Your task to perform on an android device: turn on notifications settings in the gmail app Image 0: 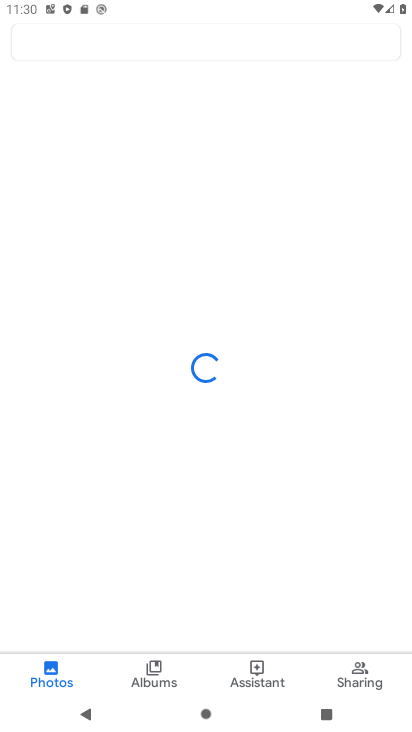
Step 0: press home button
Your task to perform on an android device: turn on notifications settings in the gmail app Image 1: 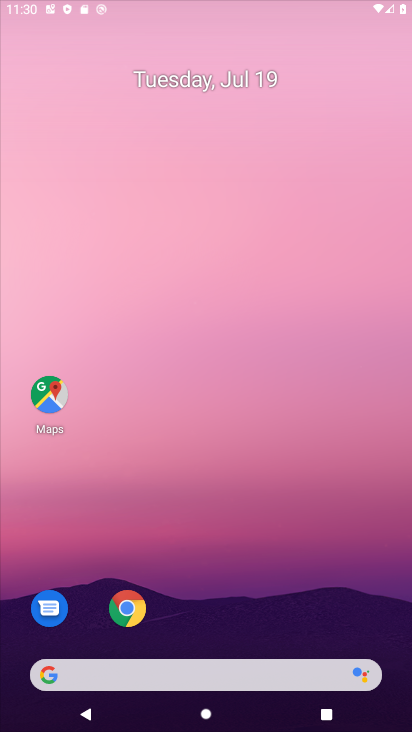
Step 1: drag from (219, 625) to (269, 72)
Your task to perform on an android device: turn on notifications settings in the gmail app Image 2: 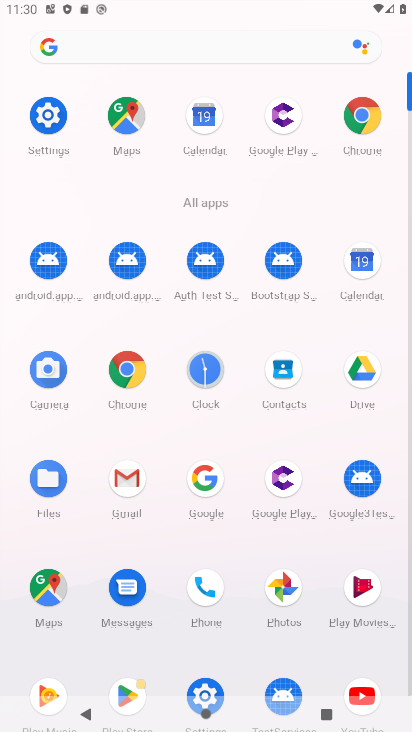
Step 2: click (130, 477)
Your task to perform on an android device: turn on notifications settings in the gmail app Image 3: 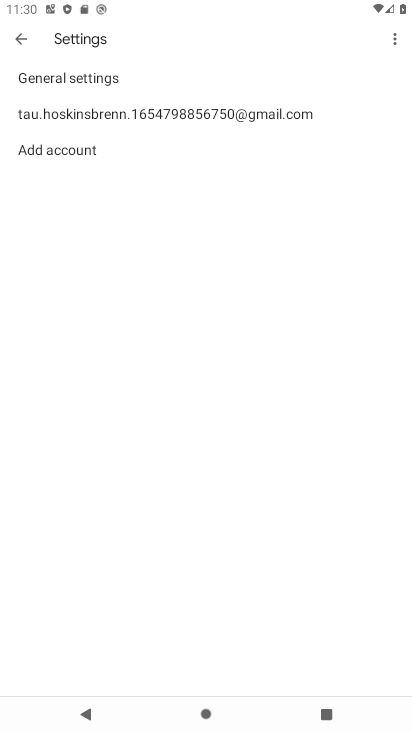
Step 3: click (169, 117)
Your task to perform on an android device: turn on notifications settings in the gmail app Image 4: 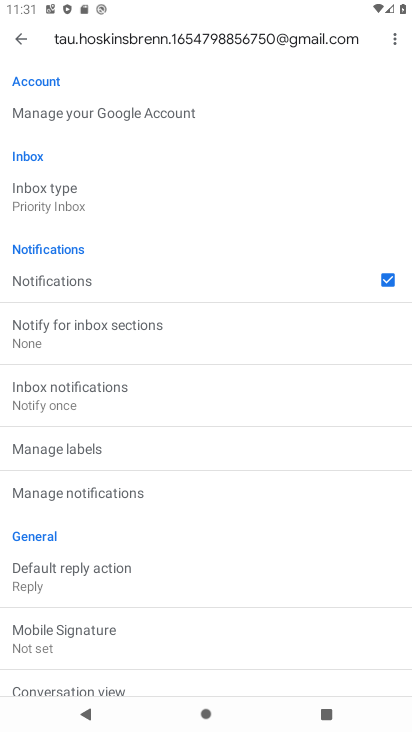
Step 4: task complete